Your task to perform on an android device: Go to settings Image 0: 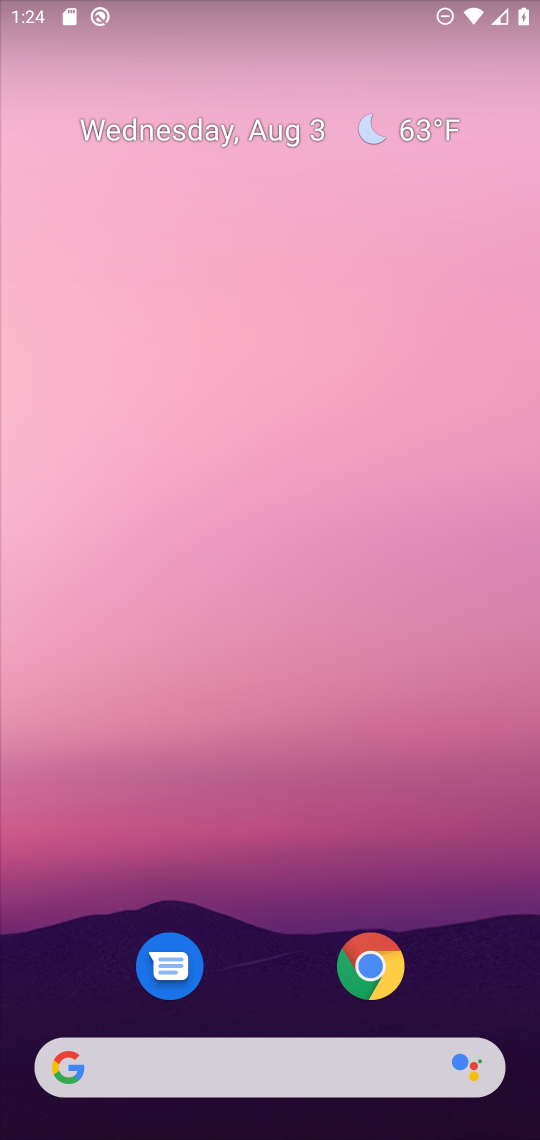
Step 0: drag from (284, 983) to (292, 156)
Your task to perform on an android device: Go to settings Image 1: 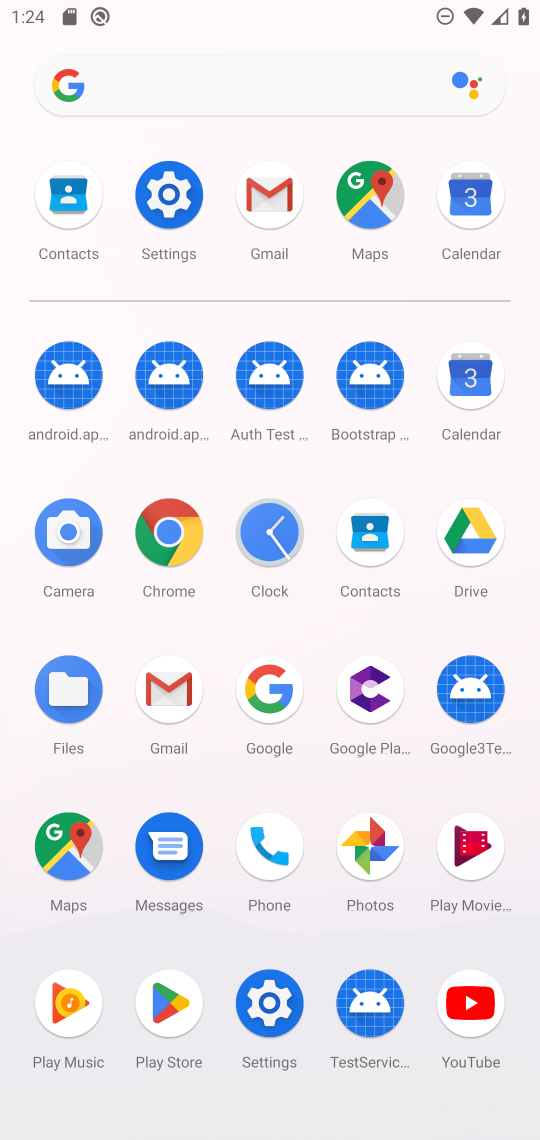
Step 1: click (181, 203)
Your task to perform on an android device: Go to settings Image 2: 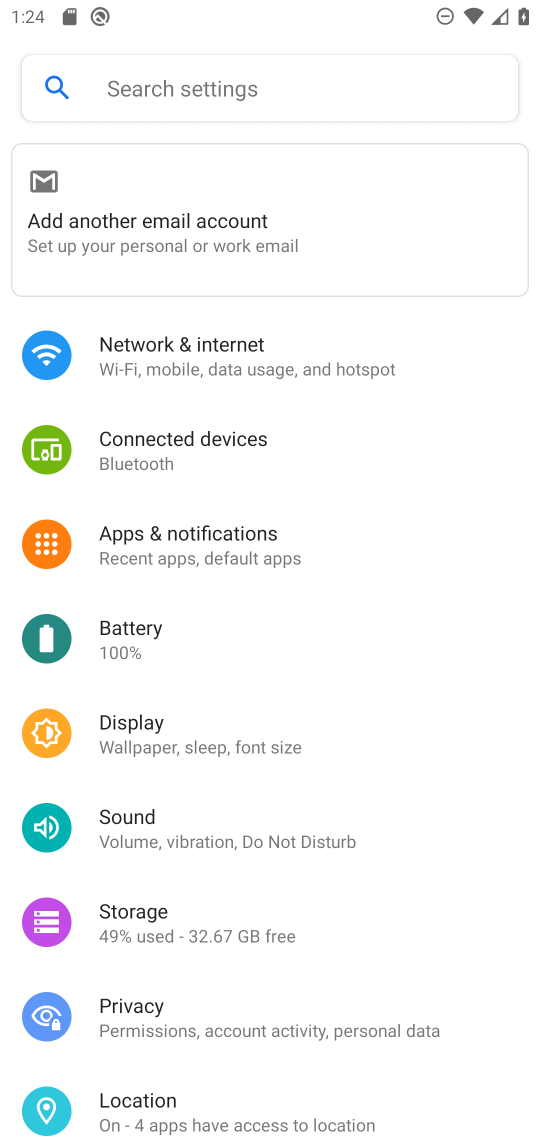
Step 2: task complete